Your task to perform on an android device: What's the weather like in Moscow? Image 0: 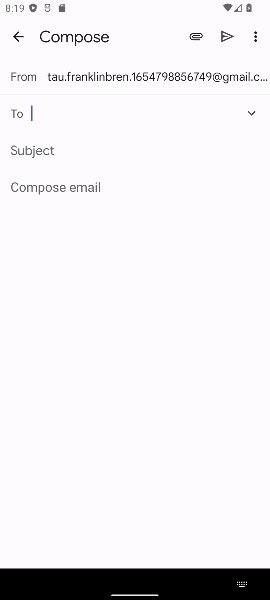
Step 0: press home button
Your task to perform on an android device: What's the weather like in Moscow? Image 1: 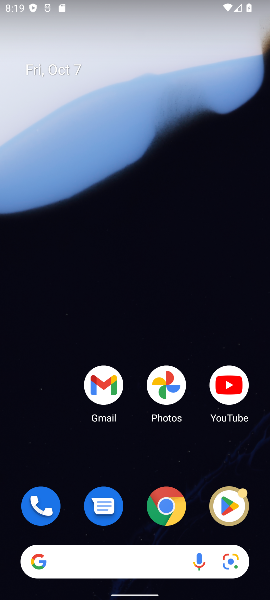
Step 1: click (159, 507)
Your task to perform on an android device: What's the weather like in Moscow? Image 2: 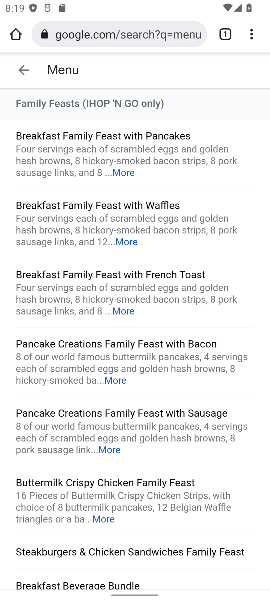
Step 2: click (161, 35)
Your task to perform on an android device: What's the weather like in Moscow? Image 3: 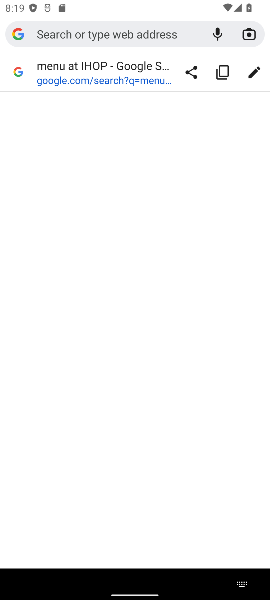
Step 3: type "weather like in Moscow"
Your task to perform on an android device: What's the weather like in Moscow? Image 4: 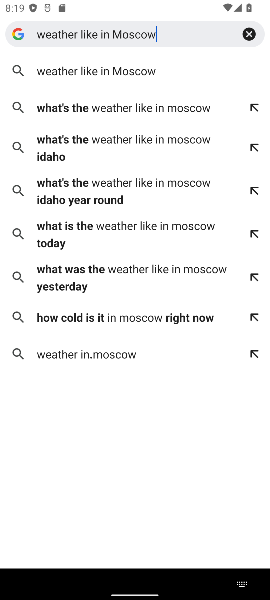
Step 4: click (100, 75)
Your task to perform on an android device: What's the weather like in Moscow? Image 5: 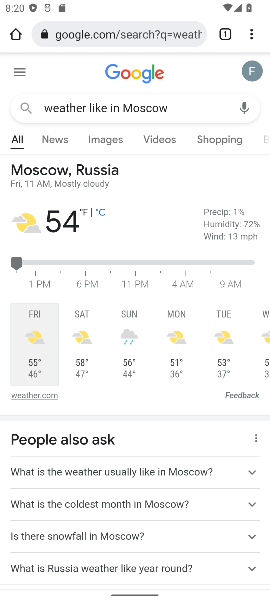
Step 5: task complete